Your task to perform on an android device: Open notification settings Image 0: 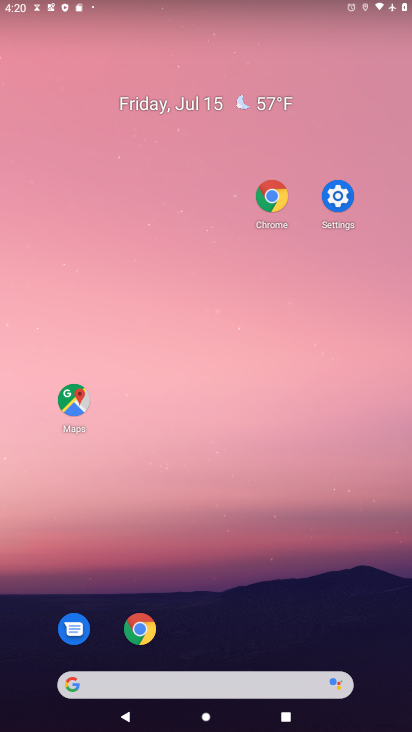
Step 0: drag from (209, 467) to (200, 190)
Your task to perform on an android device: Open notification settings Image 1: 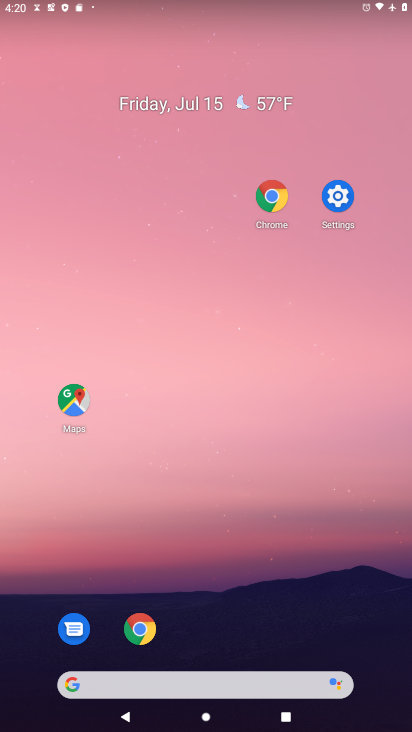
Step 1: click (199, 168)
Your task to perform on an android device: Open notification settings Image 2: 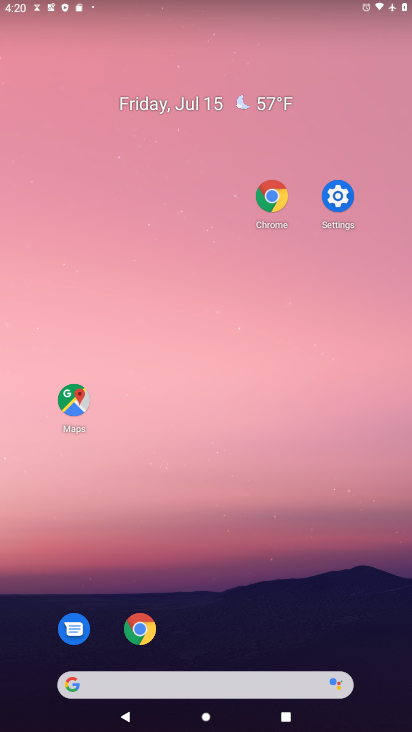
Step 2: drag from (252, 452) to (189, 41)
Your task to perform on an android device: Open notification settings Image 3: 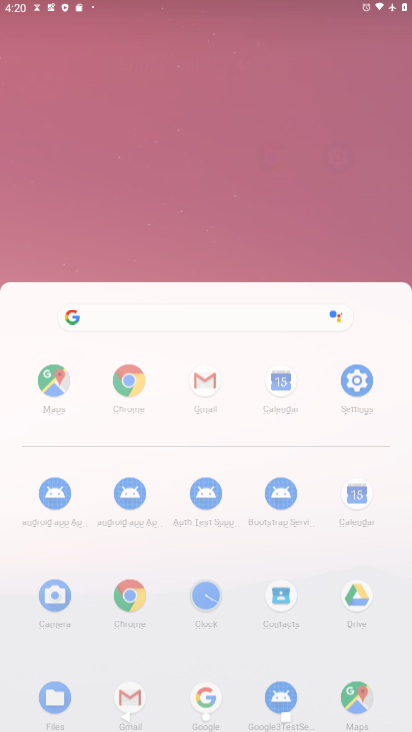
Step 3: drag from (208, 298) to (208, 73)
Your task to perform on an android device: Open notification settings Image 4: 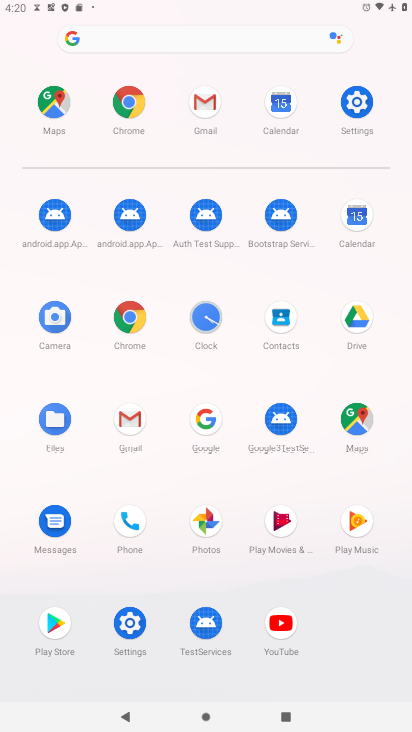
Step 4: click (214, 60)
Your task to perform on an android device: Open notification settings Image 5: 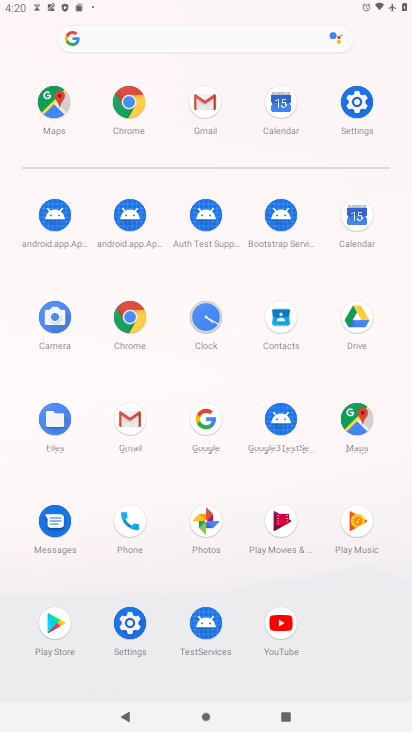
Step 5: click (150, 18)
Your task to perform on an android device: Open notification settings Image 6: 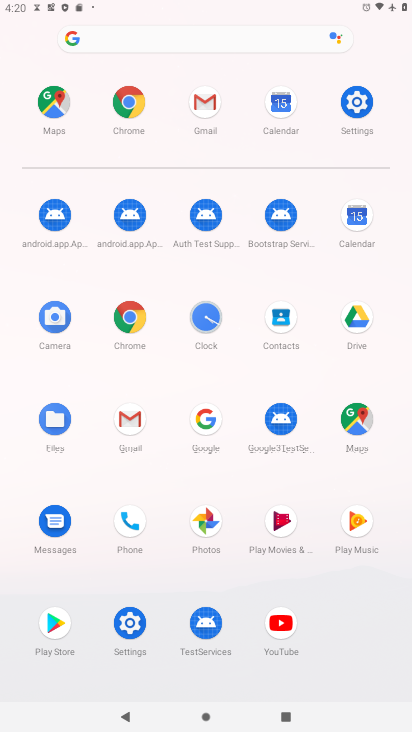
Step 6: click (168, 141)
Your task to perform on an android device: Open notification settings Image 7: 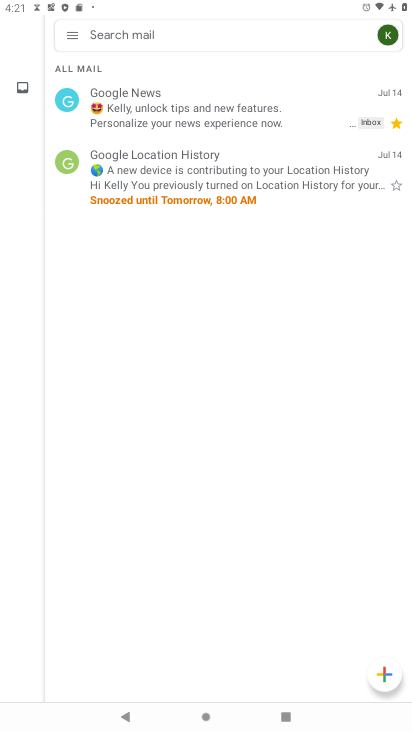
Step 7: task complete